Your task to perform on an android device: Open Google Chrome and open the bookmarks view Image 0: 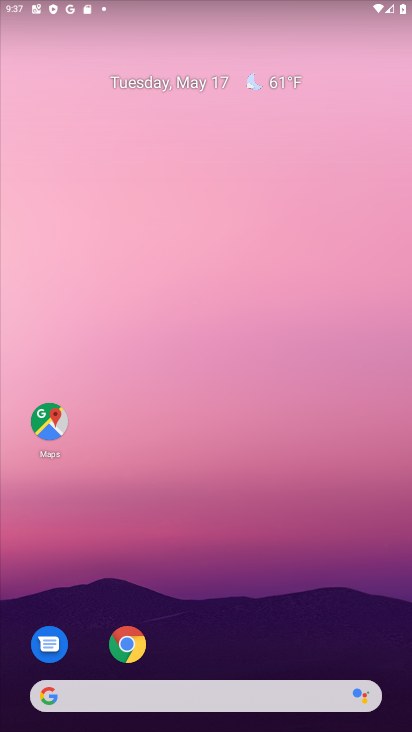
Step 0: click (124, 642)
Your task to perform on an android device: Open Google Chrome and open the bookmarks view Image 1: 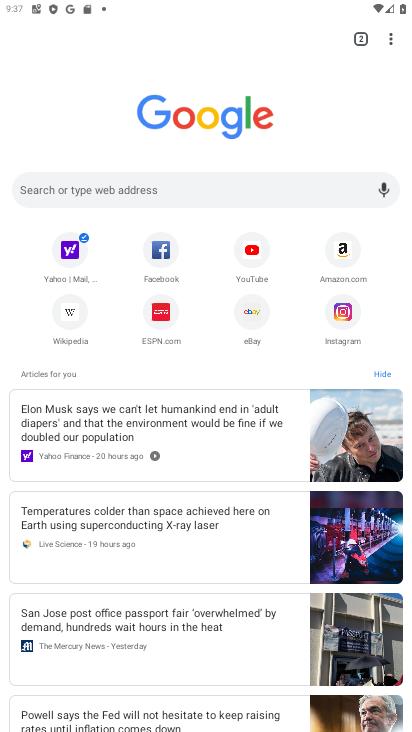
Step 1: click (401, 36)
Your task to perform on an android device: Open Google Chrome and open the bookmarks view Image 2: 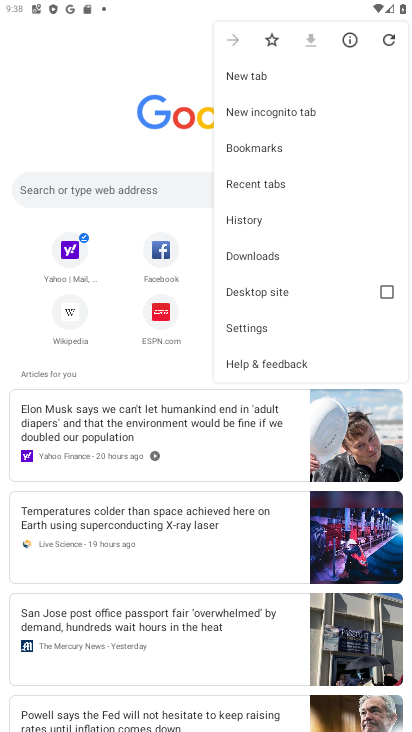
Step 2: click (261, 151)
Your task to perform on an android device: Open Google Chrome and open the bookmarks view Image 3: 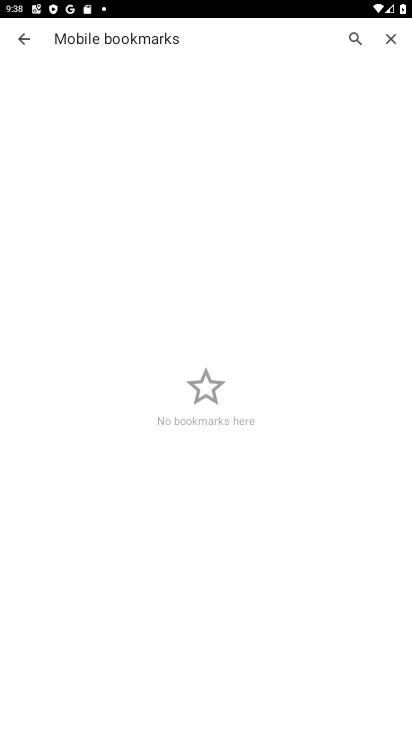
Step 3: task complete